Your task to perform on an android device: add a label to a message in the gmail app Image 0: 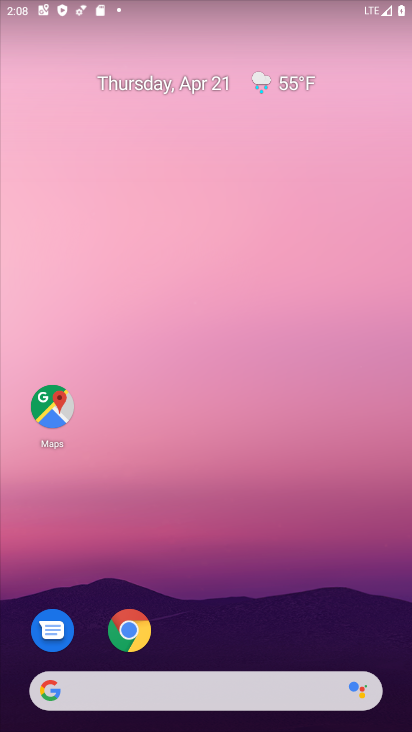
Step 0: drag from (203, 603) to (227, 162)
Your task to perform on an android device: add a label to a message in the gmail app Image 1: 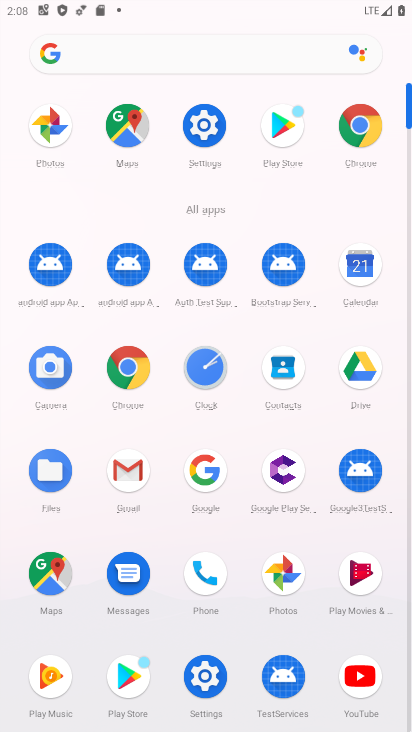
Step 1: click (135, 482)
Your task to perform on an android device: add a label to a message in the gmail app Image 2: 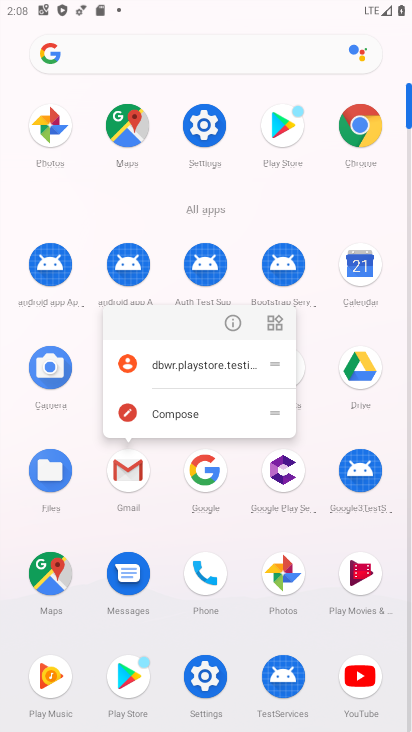
Step 2: click (125, 473)
Your task to perform on an android device: add a label to a message in the gmail app Image 3: 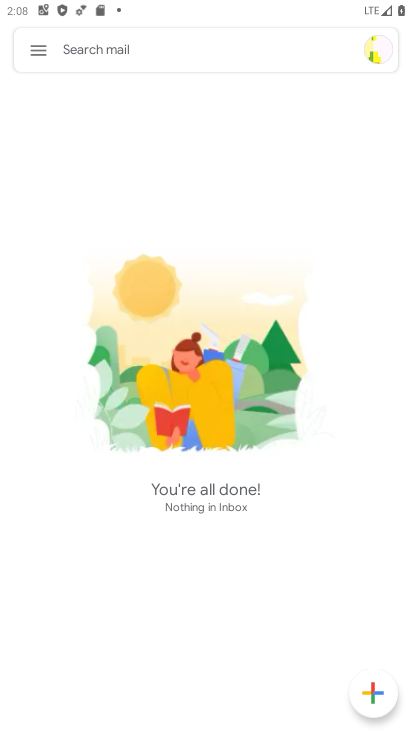
Step 3: task complete